Your task to perform on an android device: change the upload size in google photos Image 0: 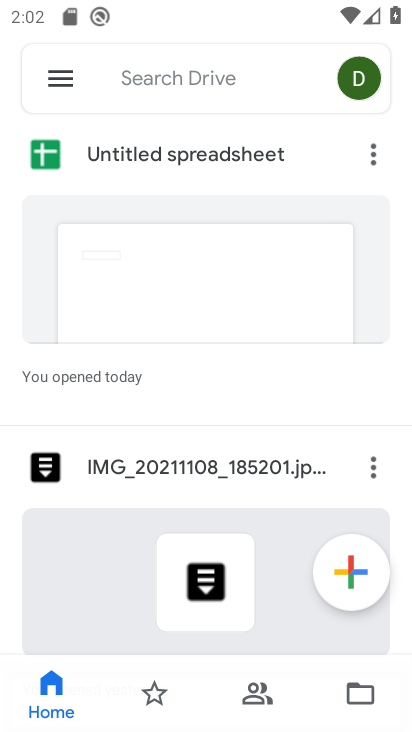
Step 0: press home button
Your task to perform on an android device: change the upload size in google photos Image 1: 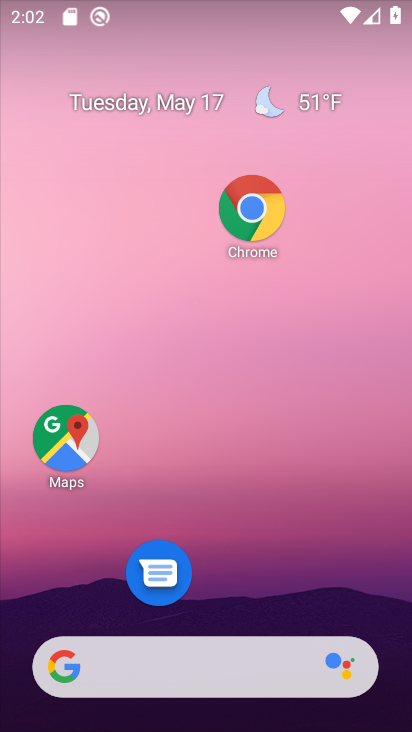
Step 1: drag from (163, 617) to (113, 0)
Your task to perform on an android device: change the upload size in google photos Image 2: 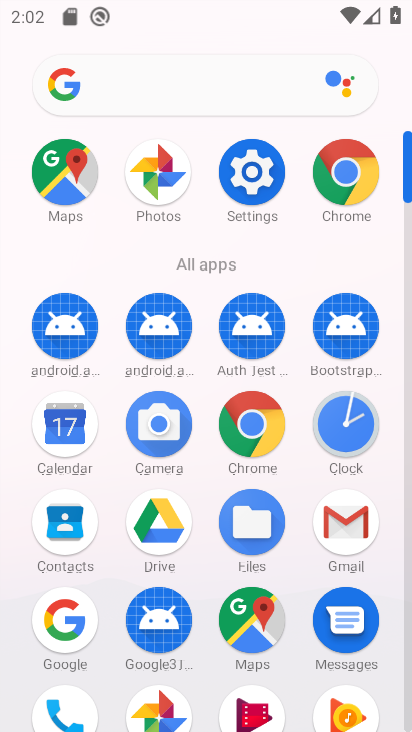
Step 2: click (170, 174)
Your task to perform on an android device: change the upload size in google photos Image 3: 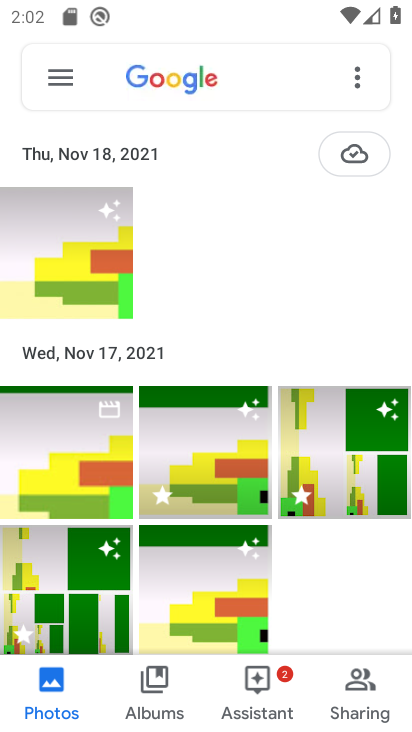
Step 3: click (50, 66)
Your task to perform on an android device: change the upload size in google photos Image 4: 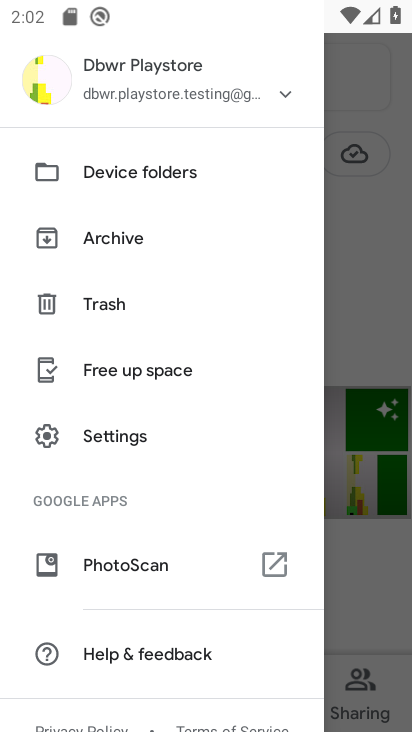
Step 4: click (88, 80)
Your task to perform on an android device: change the upload size in google photos Image 5: 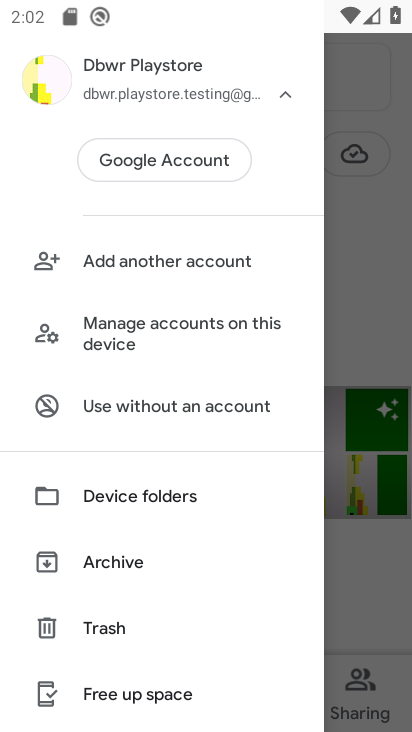
Step 5: drag from (138, 512) to (93, 166)
Your task to perform on an android device: change the upload size in google photos Image 6: 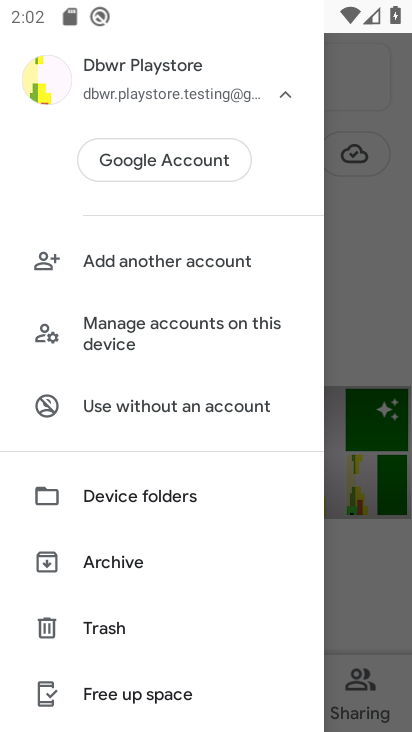
Step 6: drag from (121, 626) to (112, 205)
Your task to perform on an android device: change the upload size in google photos Image 7: 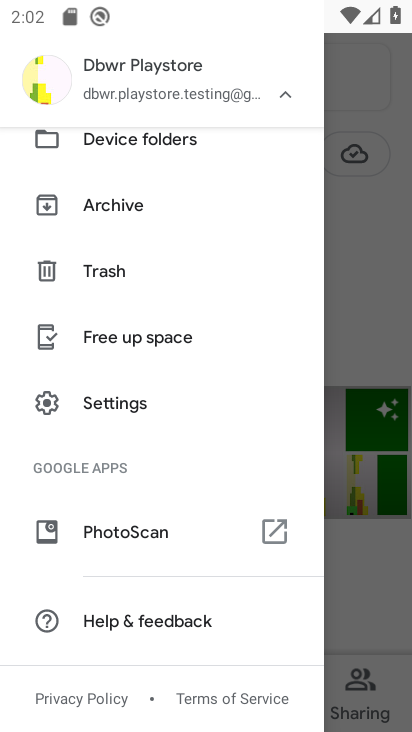
Step 7: click (125, 409)
Your task to perform on an android device: change the upload size in google photos Image 8: 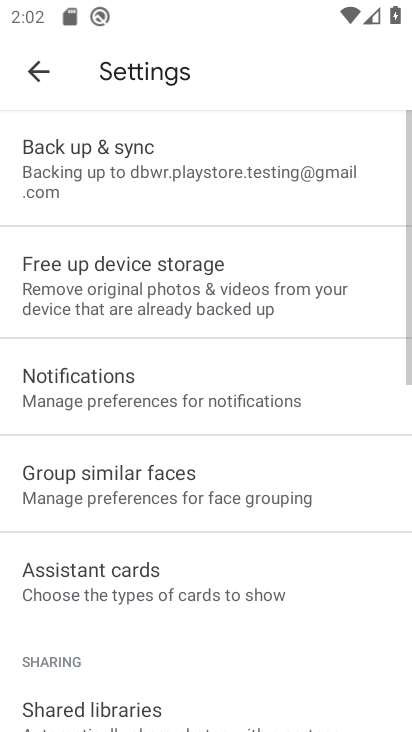
Step 8: click (98, 184)
Your task to perform on an android device: change the upload size in google photos Image 9: 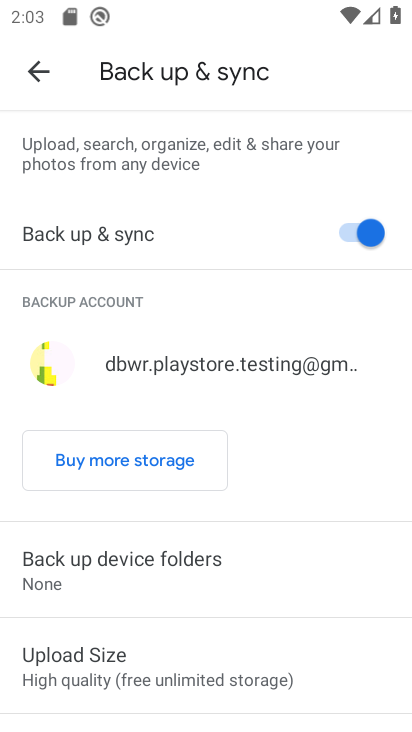
Step 9: click (165, 662)
Your task to perform on an android device: change the upload size in google photos Image 10: 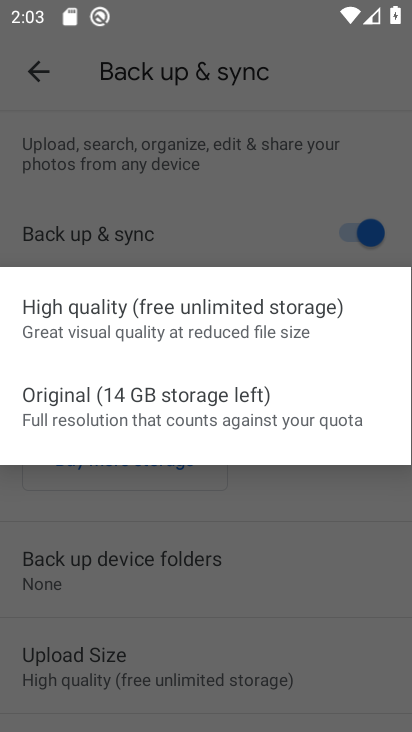
Step 10: click (171, 423)
Your task to perform on an android device: change the upload size in google photos Image 11: 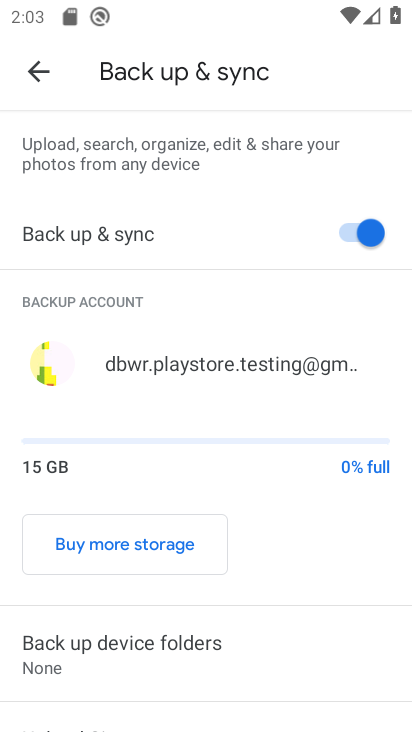
Step 11: task complete